Your task to perform on an android device: Open calendar and show me the first week of next month Image 0: 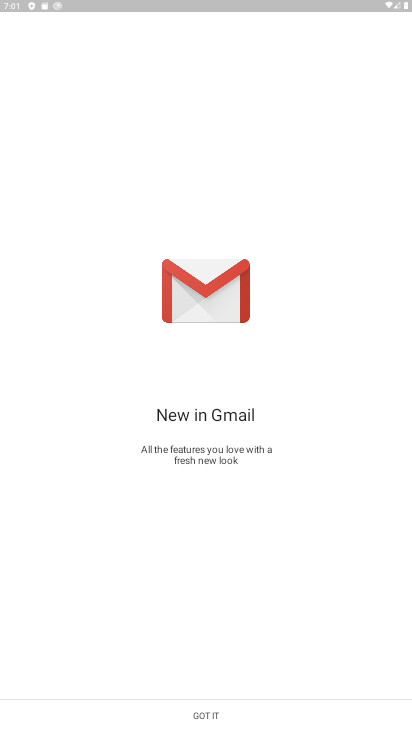
Step 0: press home button
Your task to perform on an android device: Open calendar and show me the first week of next month Image 1: 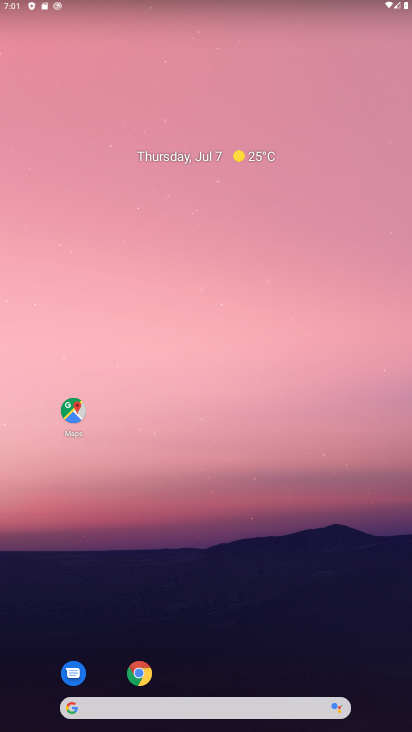
Step 1: drag from (263, 693) to (186, 276)
Your task to perform on an android device: Open calendar and show me the first week of next month Image 2: 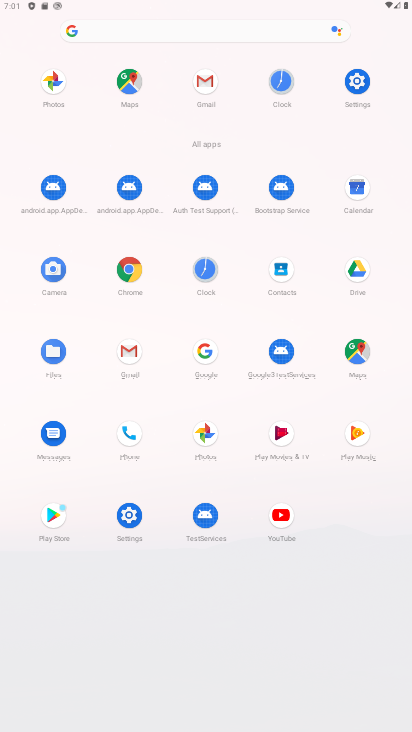
Step 2: click (367, 197)
Your task to perform on an android device: Open calendar and show me the first week of next month Image 3: 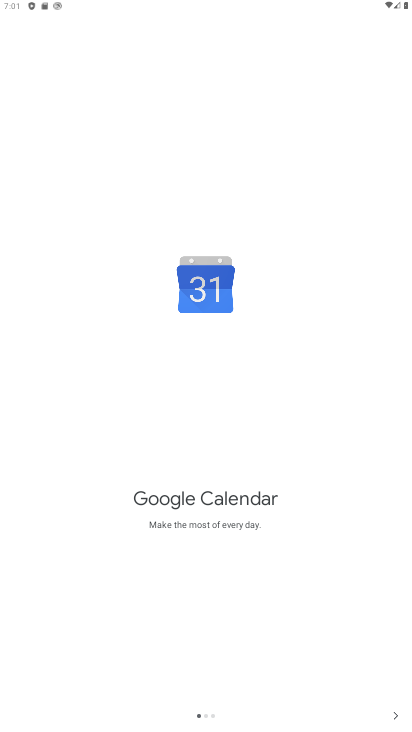
Step 3: click (392, 719)
Your task to perform on an android device: Open calendar and show me the first week of next month Image 4: 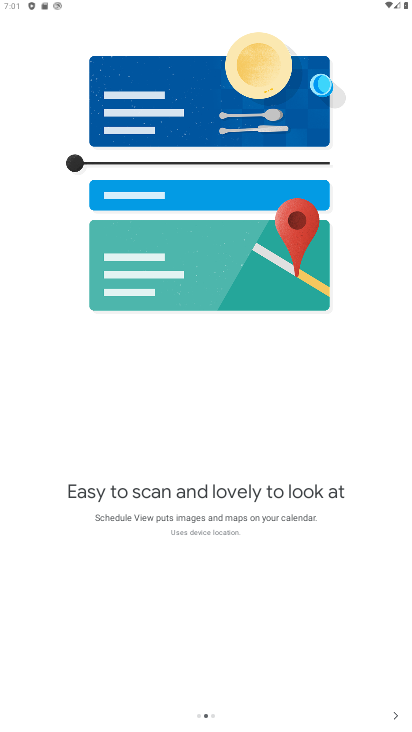
Step 4: click (385, 706)
Your task to perform on an android device: Open calendar and show me the first week of next month Image 5: 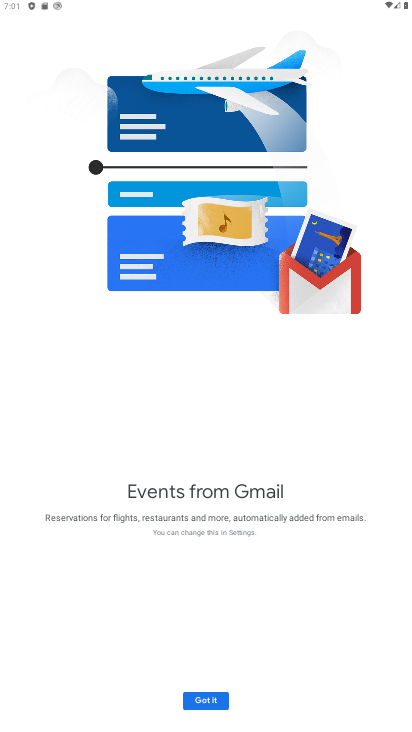
Step 5: click (208, 699)
Your task to perform on an android device: Open calendar and show me the first week of next month Image 6: 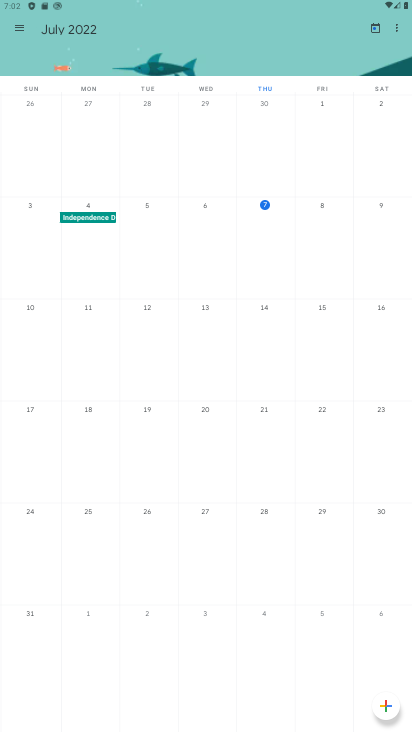
Step 6: drag from (340, 414) to (5, 433)
Your task to perform on an android device: Open calendar and show me the first week of next month Image 7: 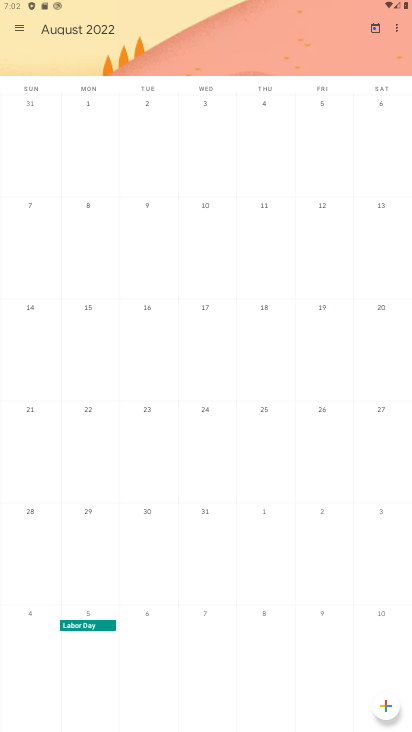
Step 7: click (88, 113)
Your task to perform on an android device: Open calendar and show me the first week of next month Image 8: 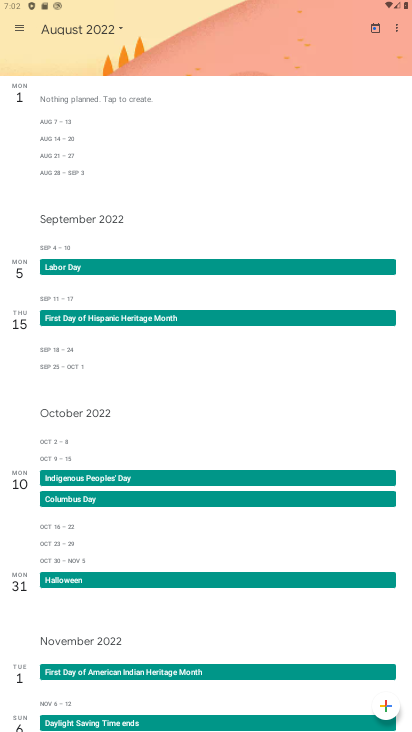
Step 8: task complete